Your task to perform on an android device: Is it going to rain tomorrow? Image 0: 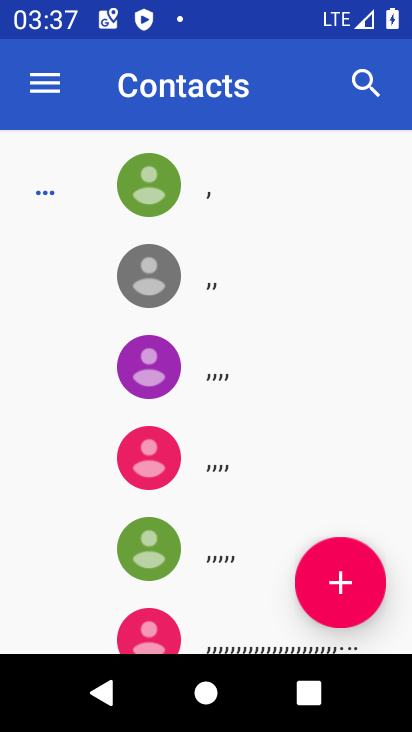
Step 0: press home button
Your task to perform on an android device: Is it going to rain tomorrow? Image 1: 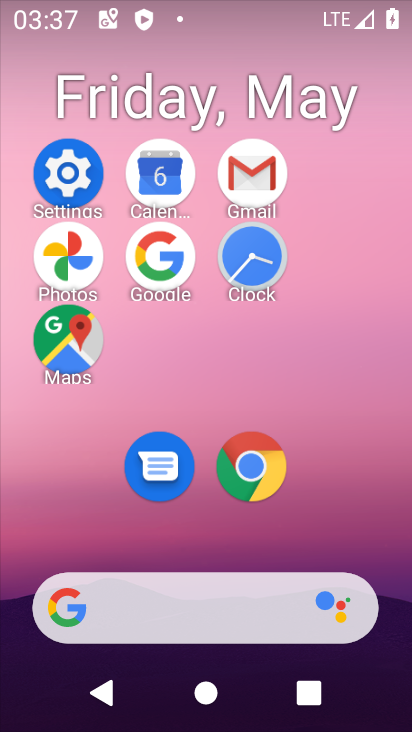
Step 1: click (165, 247)
Your task to perform on an android device: Is it going to rain tomorrow? Image 2: 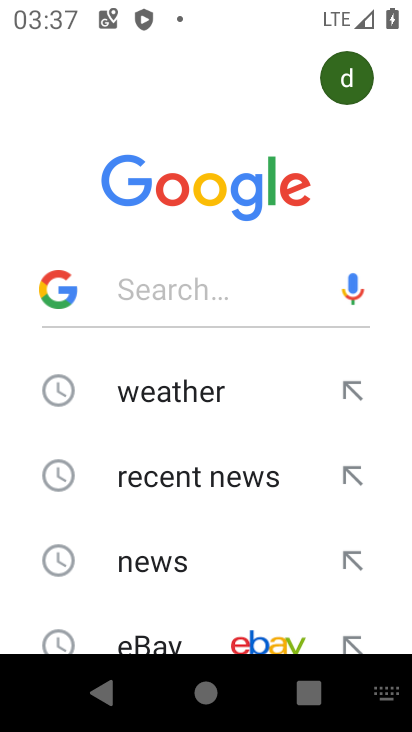
Step 2: click (190, 372)
Your task to perform on an android device: Is it going to rain tomorrow? Image 3: 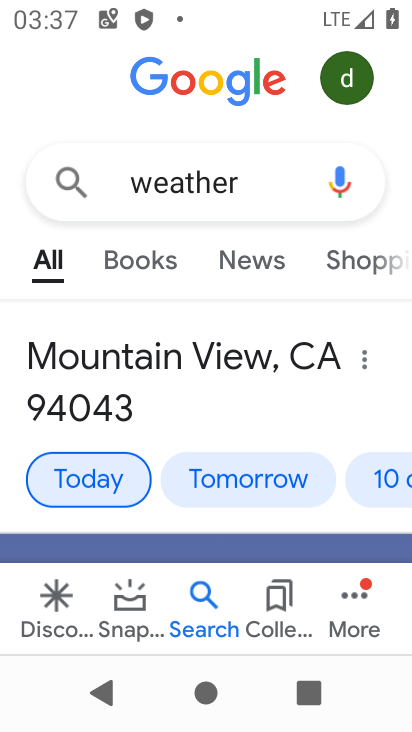
Step 3: click (250, 470)
Your task to perform on an android device: Is it going to rain tomorrow? Image 4: 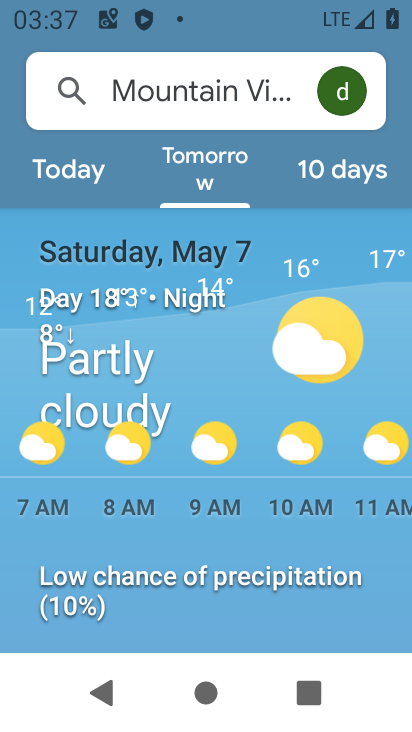
Step 4: task complete